Your task to perform on an android device: clear history in the chrome app Image 0: 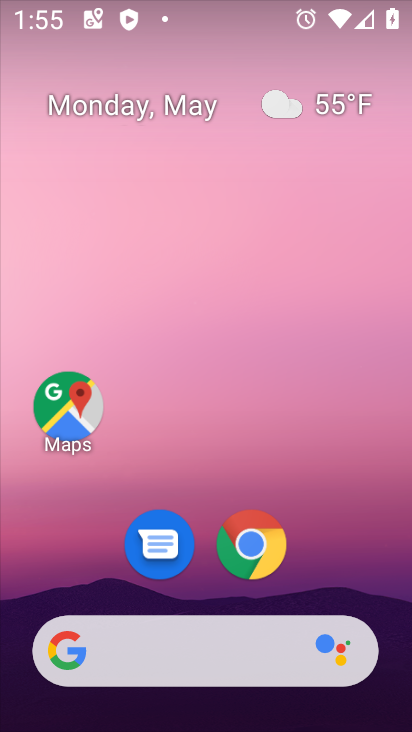
Step 0: click (252, 545)
Your task to perform on an android device: clear history in the chrome app Image 1: 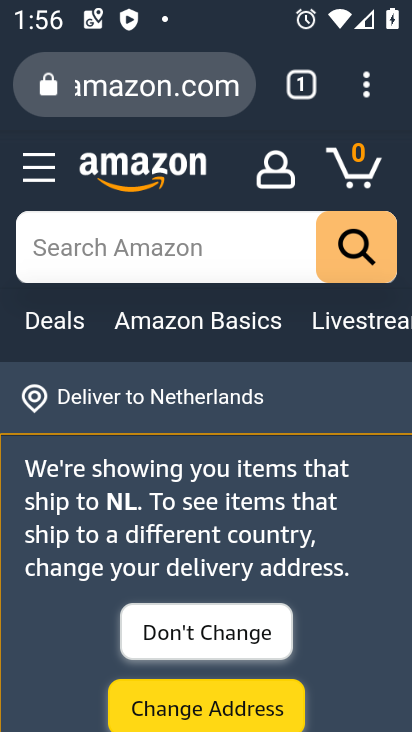
Step 1: click (364, 88)
Your task to perform on an android device: clear history in the chrome app Image 2: 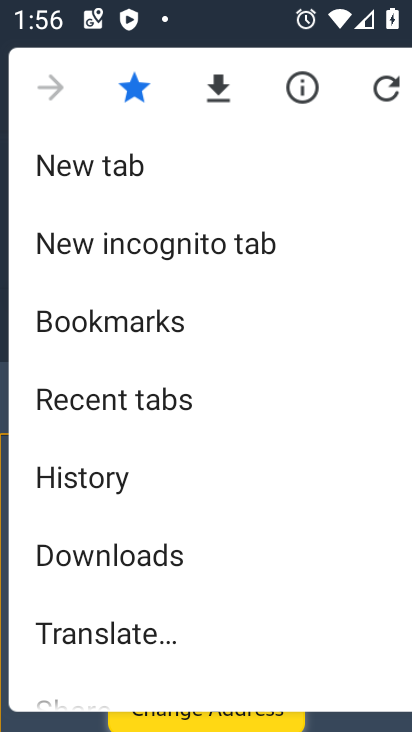
Step 2: click (84, 476)
Your task to perform on an android device: clear history in the chrome app Image 3: 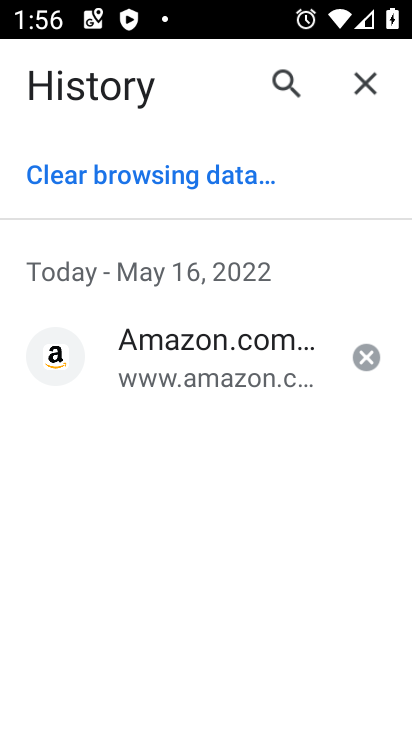
Step 3: click (135, 185)
Your task to perform on an android device: clear history in the chrome app Image 4: 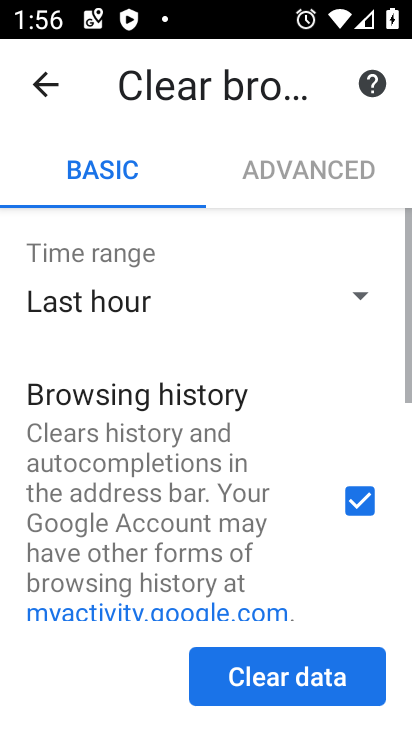
Step 4: drag from (308, 581) to (279, 179)
Your task to perform on an android device: clear history in the chrome app Image 5: 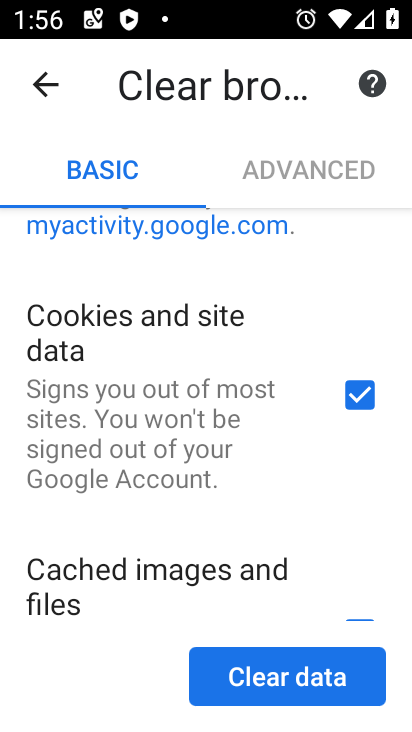
Step 5: click (357, 387)
Your task to perform on an android device: clear history in the chrome app Image 6: 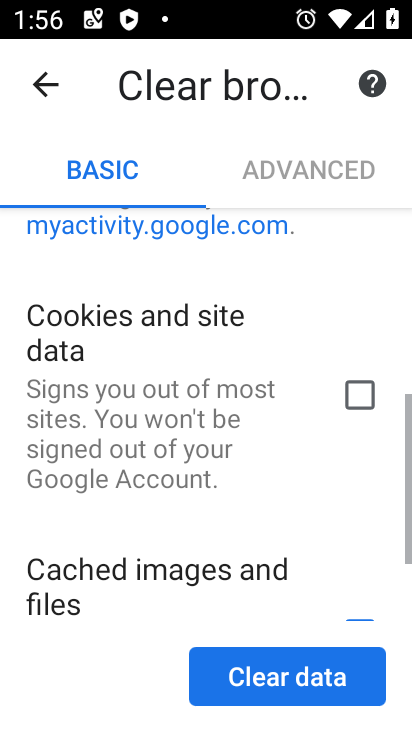
Step 6: drag from (288, 533) to (240, 120)
Your task to perform on an android device: clear history in the chrome app Image 7: 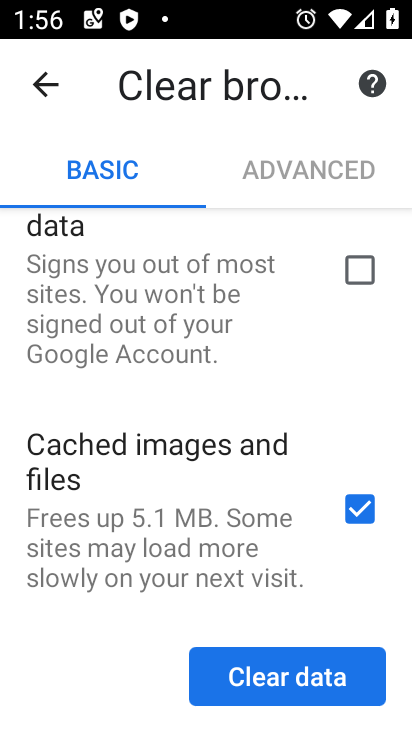
Step 7: click (363, 511)
Your task to perform on an android device: clear history in the chrome app Image 8: 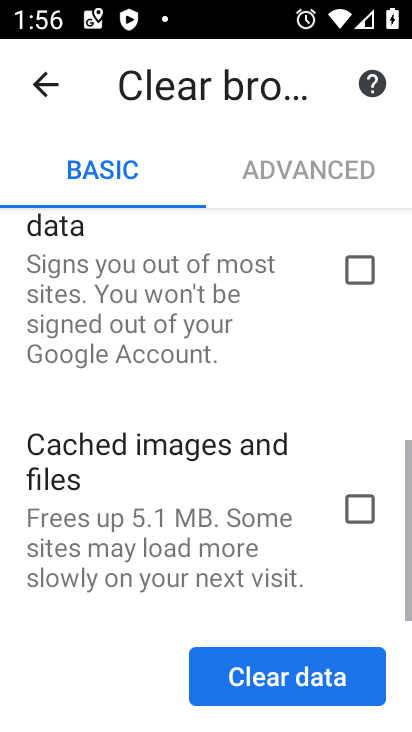
Step 8: click (293, 689)
Your task to perform on an android device: clear history in the chrome app Image 9: 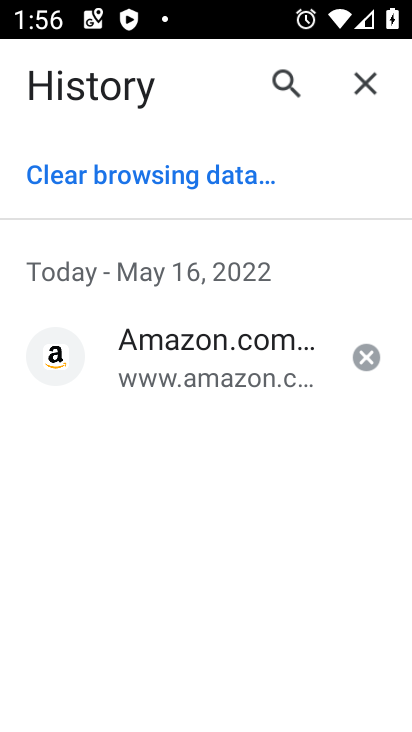
Step 9: task complete